Your task to perform on an android device: change the clock display to digital Image 0: 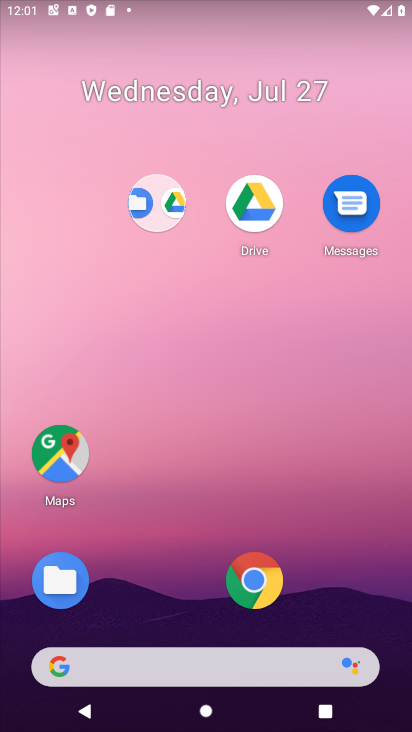
Step 0: drag from (119, 603) to (112, 166)
Your task to perform on an android device: change the clock display to digital Image 1: 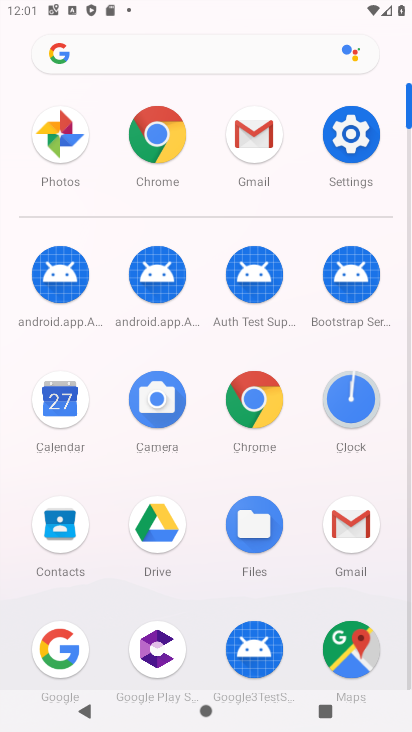
Step 1: click (346, 381)
Your task to perform on an android device: change the clock display to digital Image 2: 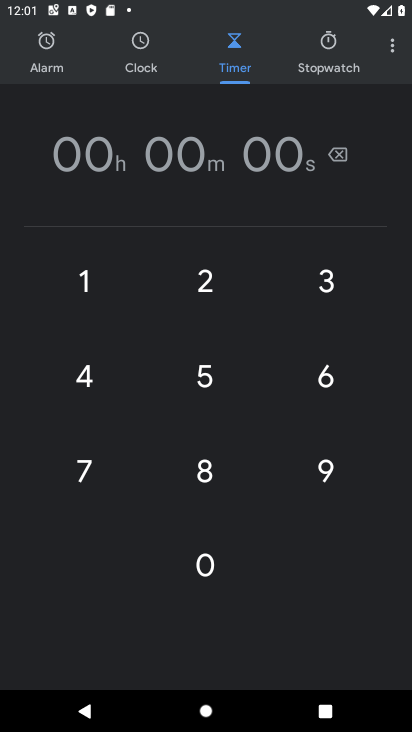
Step 2: click (399, 53)
Your task to perform on an android device: change the clock display to digital Image 3: 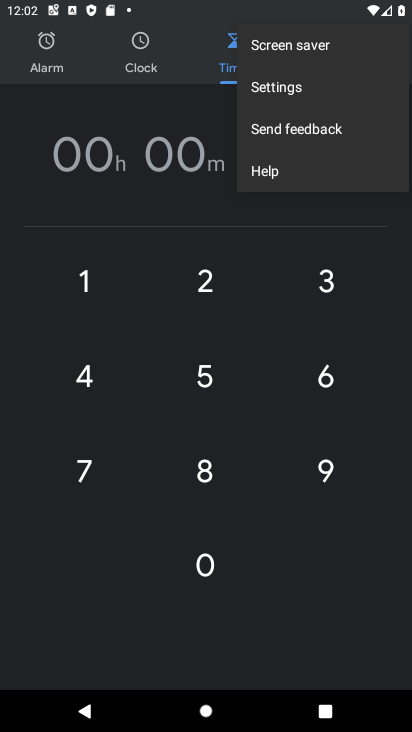
Step 3: click (317, 93)
Your task to perform on an android device: change the clock display to digital Image 4: 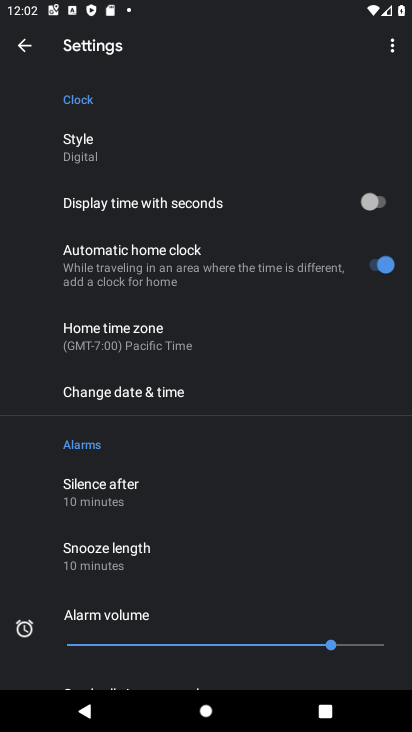
Step 4: task complete